Your task to perform on an android device: turn off data saver in the chrome app Image 0: 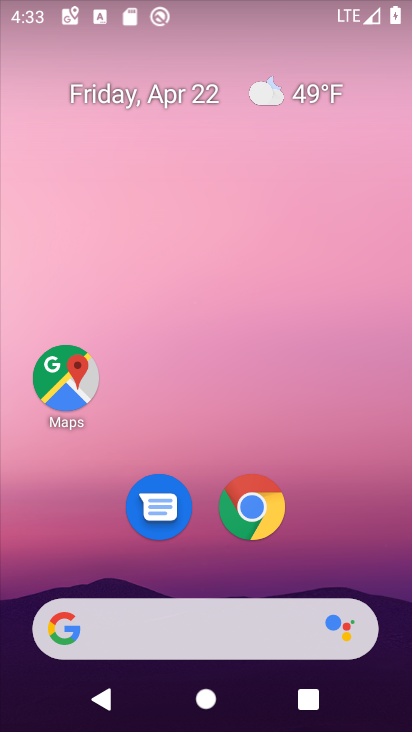
Step 0: click (250, 502)
Your task to perform on an android device: turn off data saver in the chrome app Image 1: 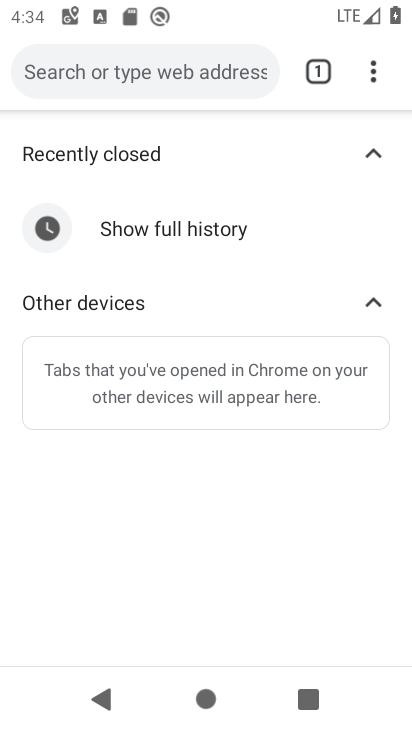
Step 1: click (372, 79)
Your task to perform on an android device: turn off data saver in the chrome app Image 2: 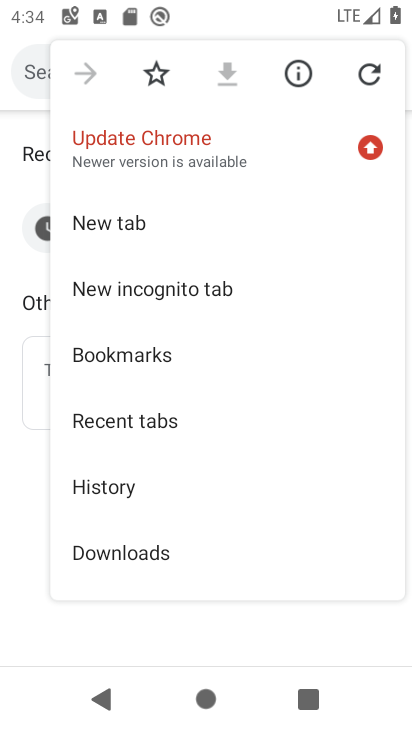
Step 2: drag from (217, 521) to (274, 240)
Your task to perform on an android device: turn off data saver in the chrome app Image 3: 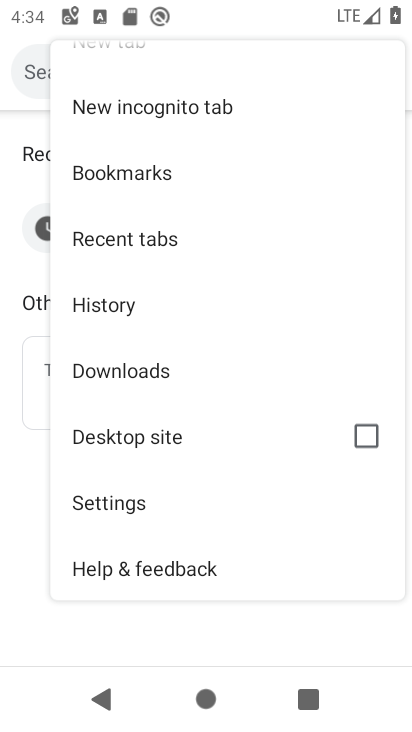
Step 3: click (113, 501)
Your task to perform on an android device: turn off data saver in the chrome app Image 4: 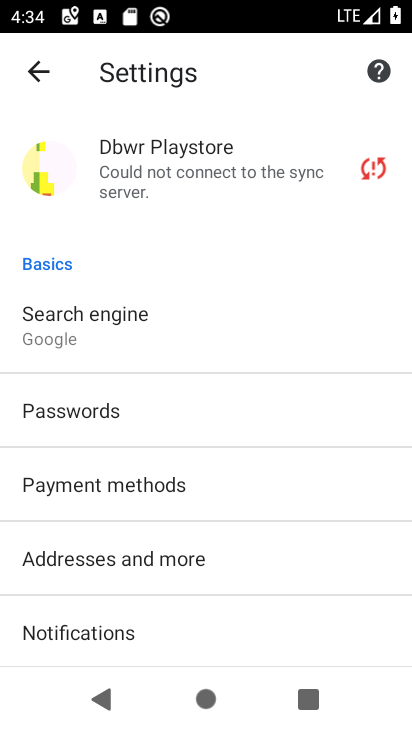
Step 4: drag from (246, 585) to (259, 303)
Your task to perform on an android device: turn off data saver in the chrome app Image 5: 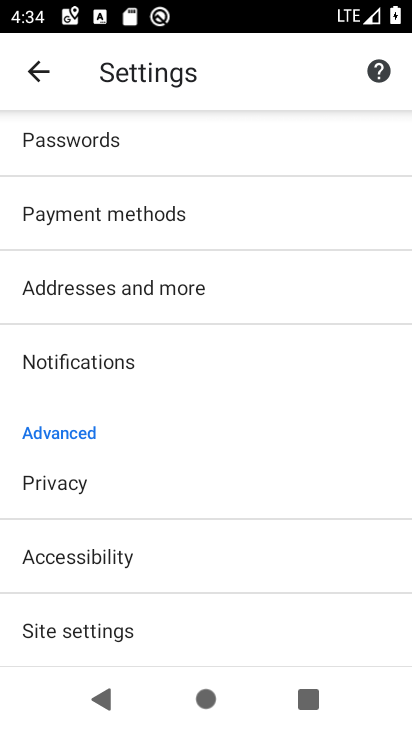
Step 5: drag from (234, 581) to (260, 254)
Your task to perform on an android device: turn off data saver in the chrome app Image 6: 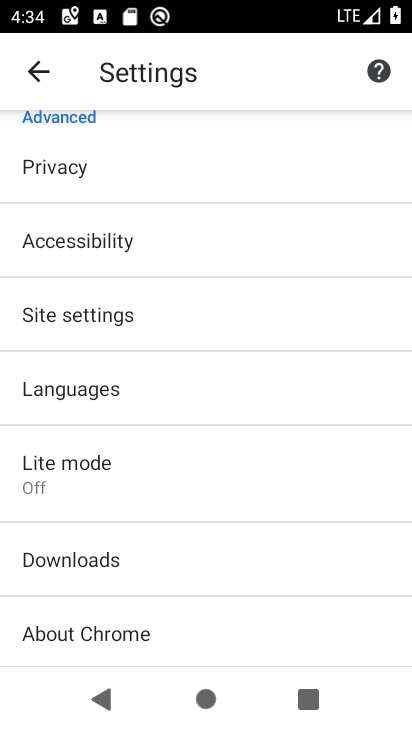
Step 6: click (42, 469)
Your task to perform on an android device: turn off data saver in the chrome app Image 7: 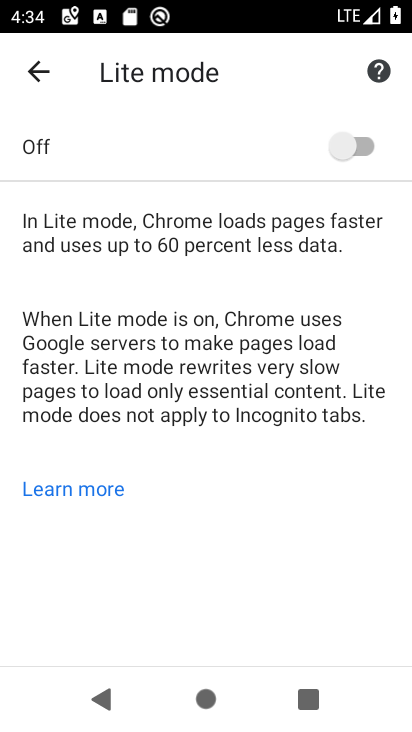
Step 7: task complete